Your task to perform on an android device: Open CNN.com Image 0: 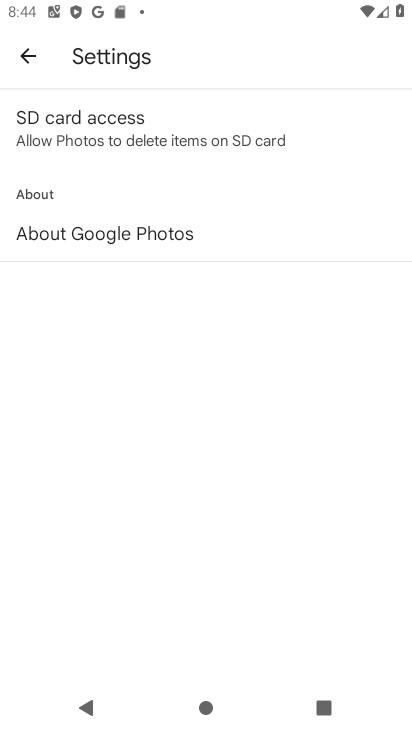
Step 0: press back button
Your task to perform on an android device: Open CNN.com Image 1: 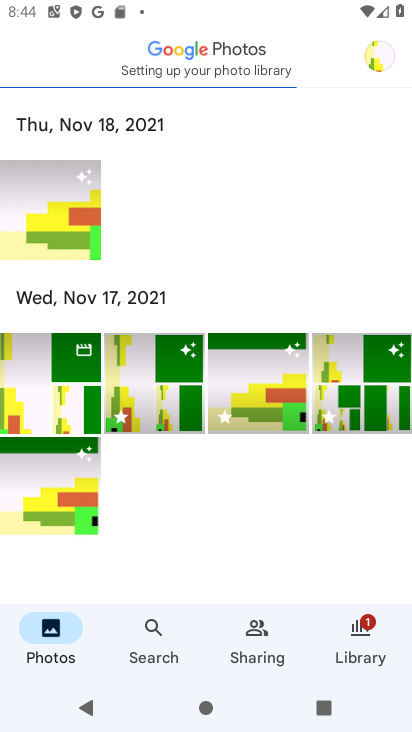
Step 1: press back button
Your task to perform on an android device: Open CNN.com Image 2: 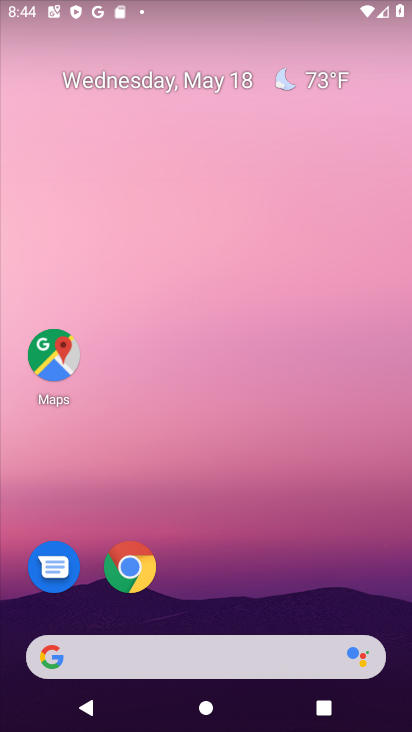
Step 2: drag from (197, 448) to (153, 14)
Your task to perform on an android device: Open CNN.com Image 3: 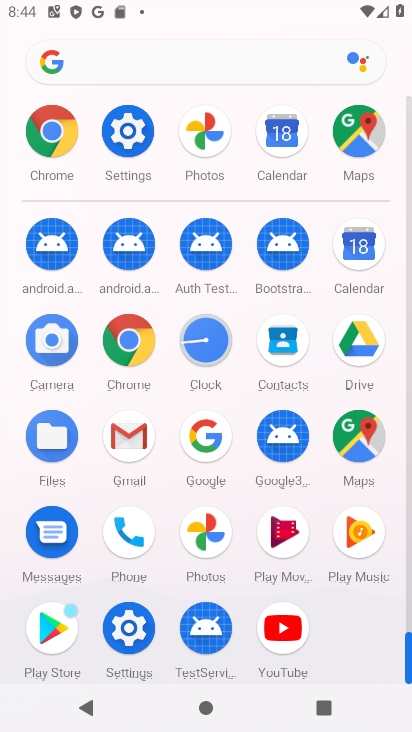
Step 3: click (126, 340)
Your task to perform on an android device: Open CNN.com Image 4: 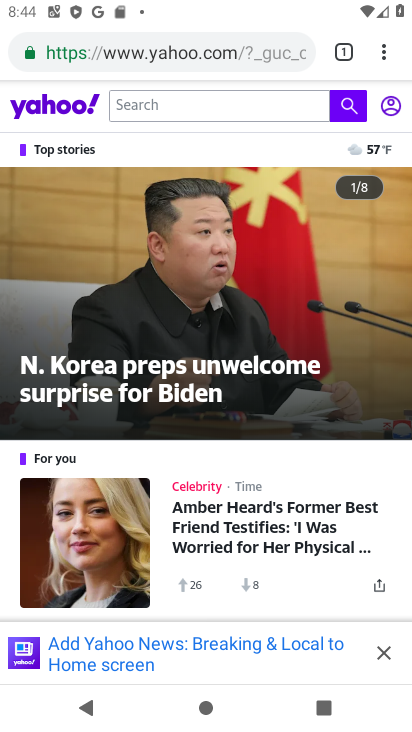
Step 4: click (169, 45)
Your task to perform on an android device: Open CNN.com Image 5: 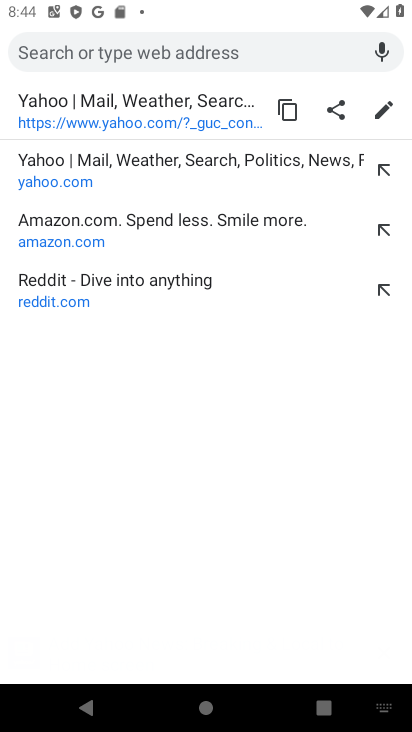
Step 5: type "CNN.com"
Your task to perform on an android device: Open CNN.com Image 6: 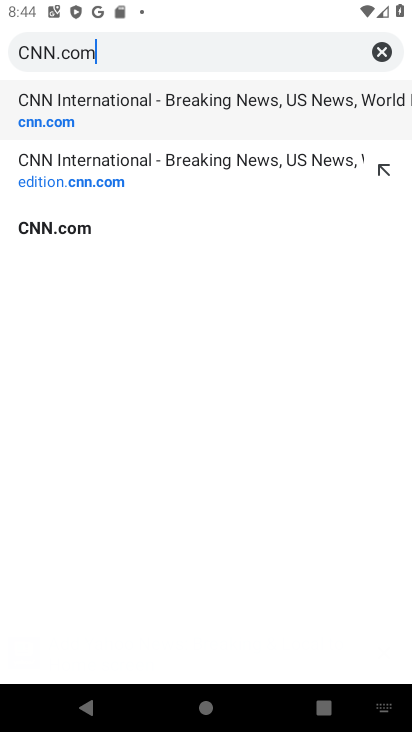
Step 6: type ""
Your task to perform on an android device: Open CNN.com Image 7: 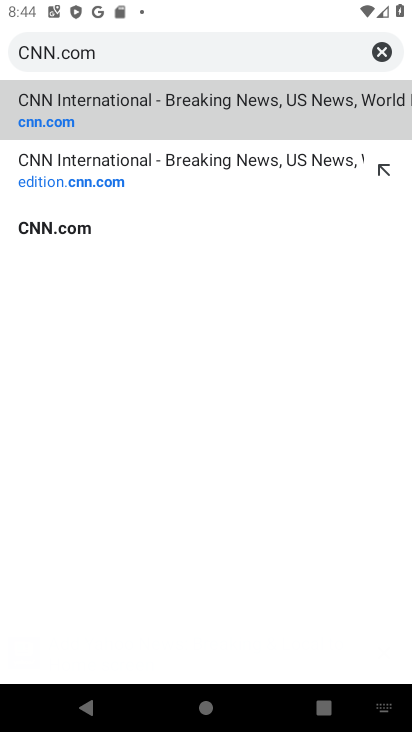
Step 7: click (111, 102)
Your task to perform on an android device: Open CNN.com Image 8: 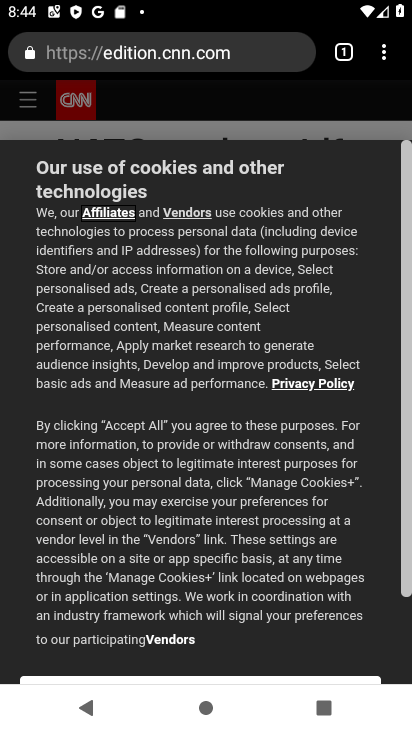
Step 8: drag from (224, 581) to (262, 230)
Your task to perform on an android device: Open CNN.com Image 9: 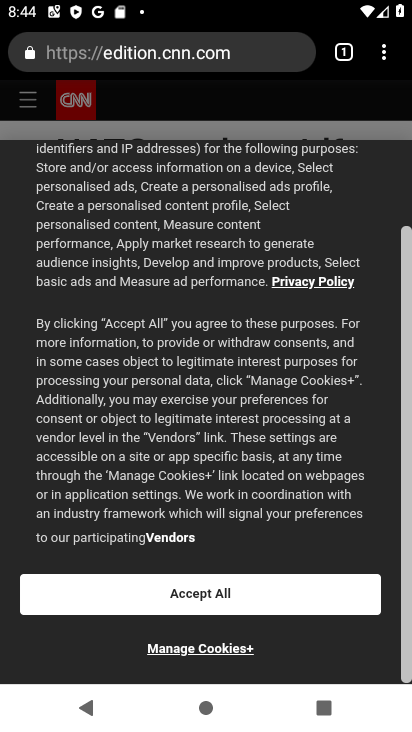
Step 9: click (193, 587)
Your task to perform on an android device: Open CNN.com Image 10: 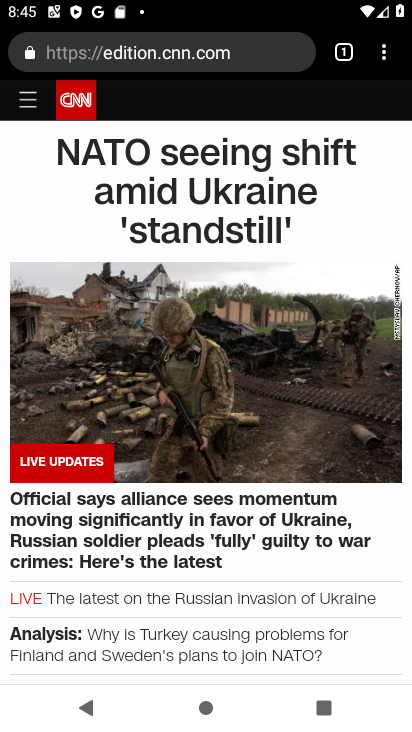
Step 10: task complete